Your task to perform on an android device: Open eBay Image 0: 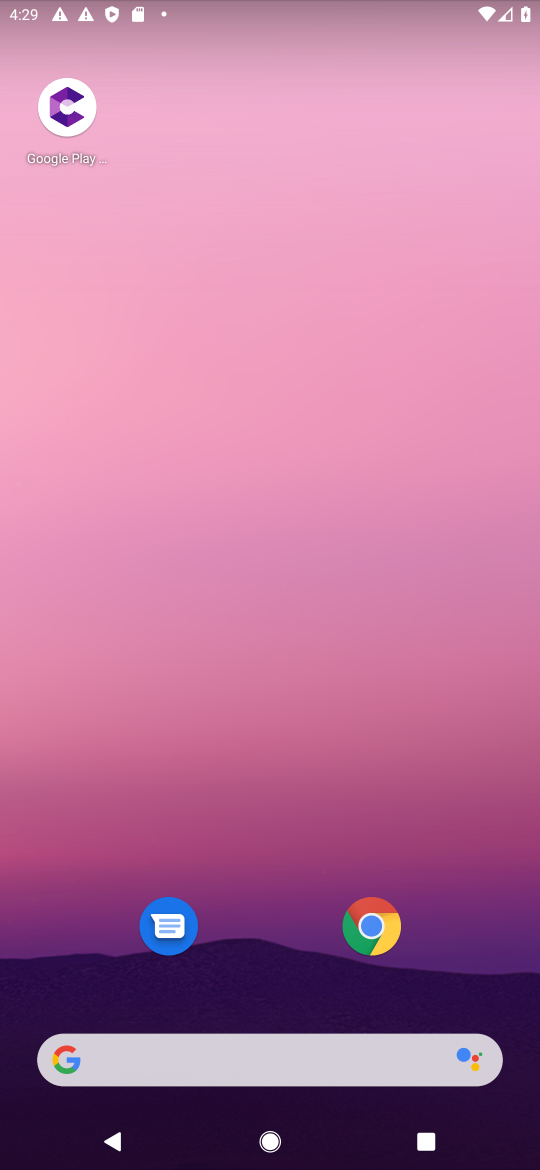
Step 0: press home button
Your task to perform on an android device: Open eBay Image 1: 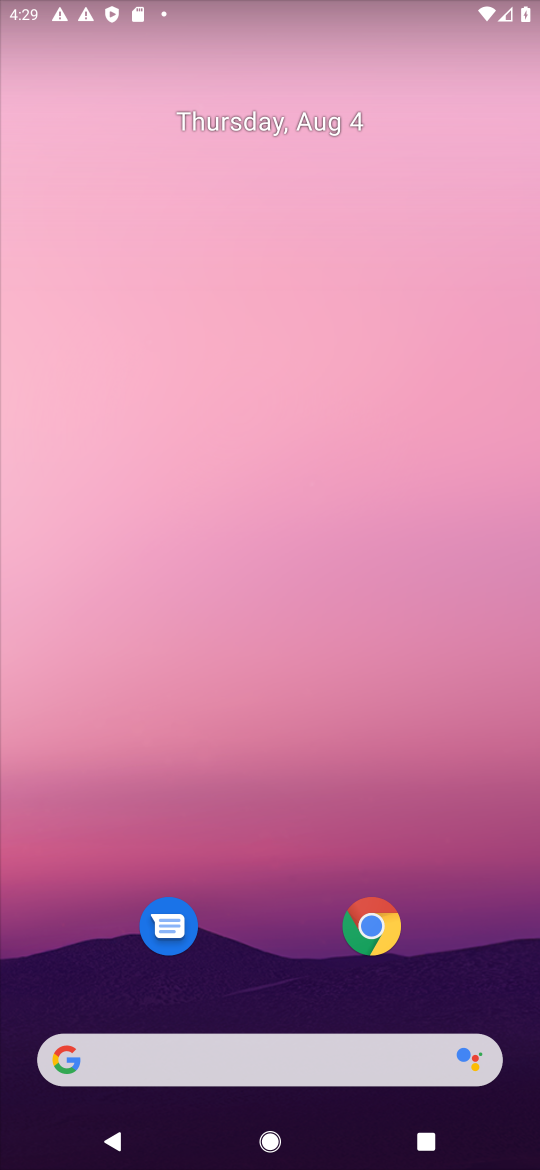
Step 1: click (44, 1059)
Your task to perform on an android device: Open eBay Image 2: 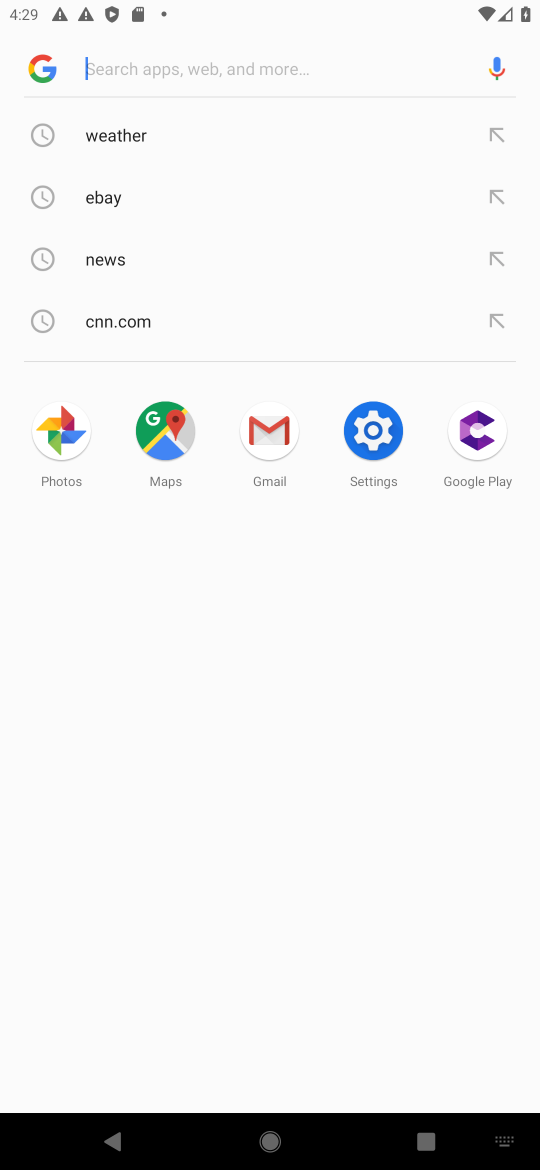
Step 2: click (110, 197)
Your task to perform on an android device: Open eBay Image 3: 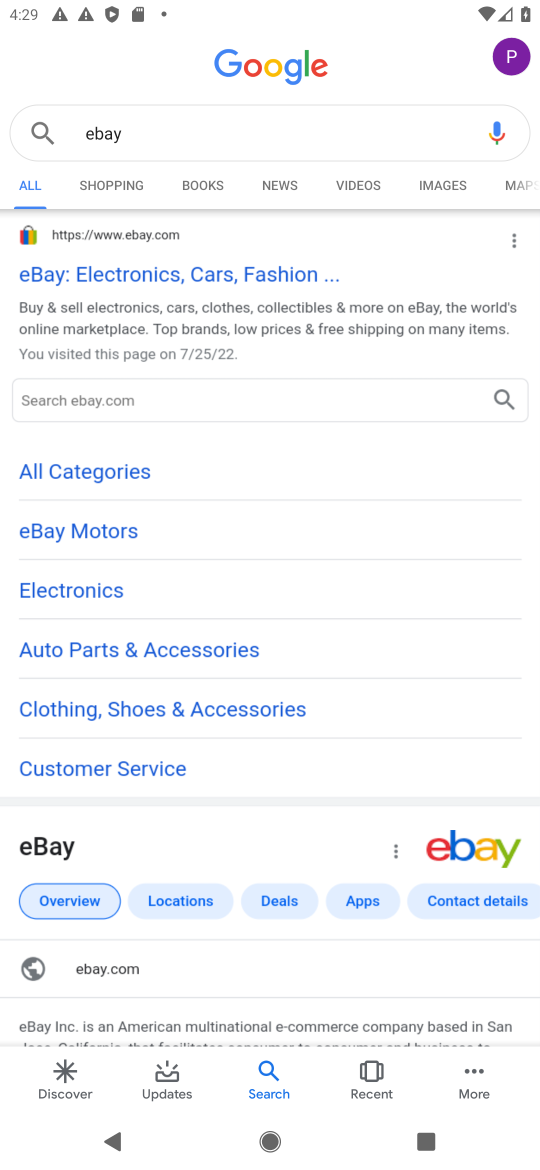
Step 3: click (112, 971)
Your task to perform on an android device: Open eBay Image 4: 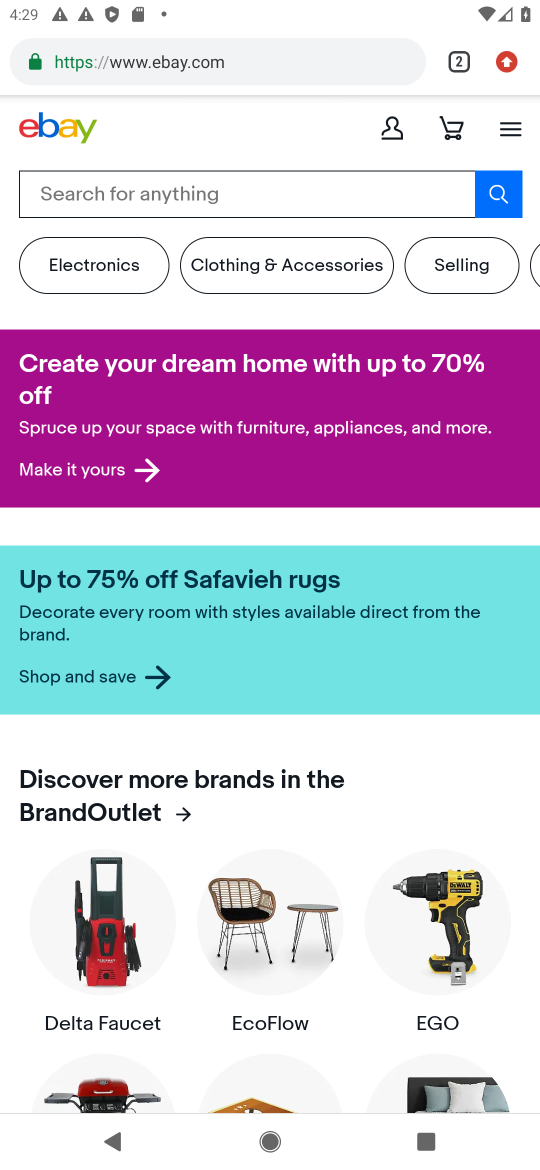
Step 4: task complete